Your task to perform on an android device: turn off data saver in the chrome app Image 0: 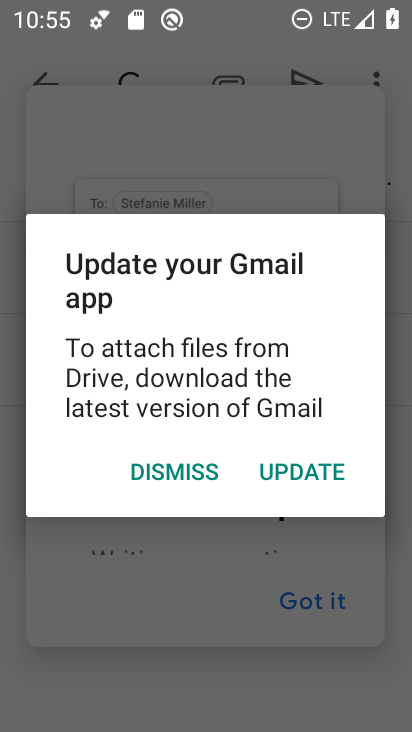
Step 0: press home button
Your task to perform on an android device: turn off data saver in the chrome app Image 1: 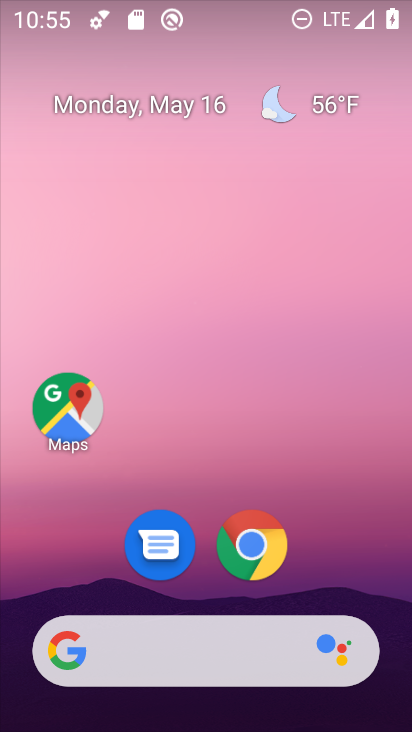
Step 1: click (251, 545)
Your task to perform on an android device: turn off data saver in the chrome app Image 2: 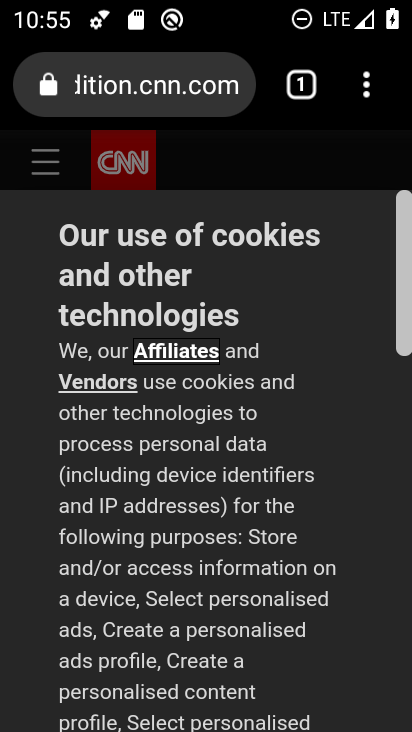
Step 2: click (368, 87)
Your task to perform on an android device: turn off data saver in the chrome app Image 3: 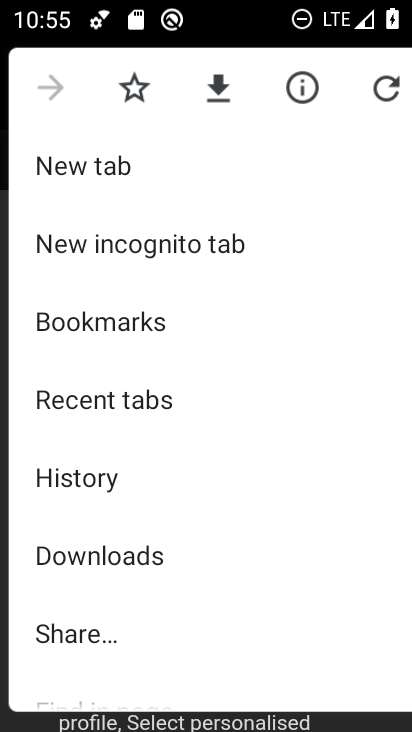
Step 3: drag from (216, 506) to (193, 384)
Your task to perform on an android device: turn off data saver in the chrome app Image 4: 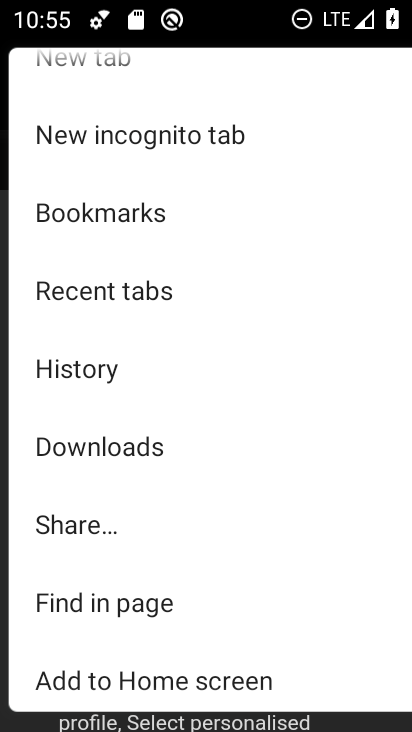
Step 4: drag from (194, 593) to (171, 456)
Your task to perform on an android device: turn off data saver in the chrome app Image 5: 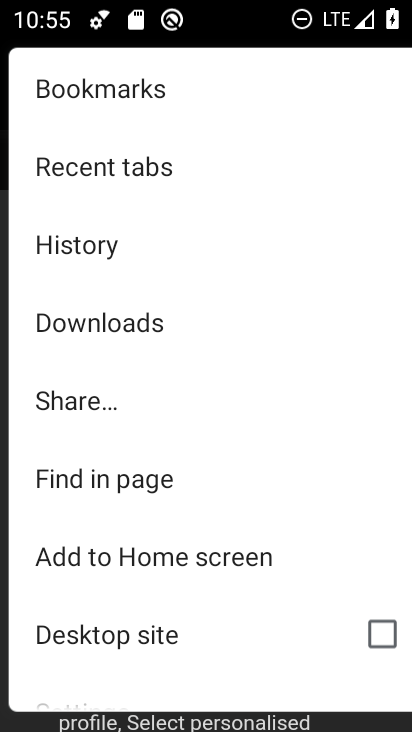
Step 5: drag from (152, 589) to (199, 429)
Your task to perform on an android device: turn off data saver in the chrome app Image 6: 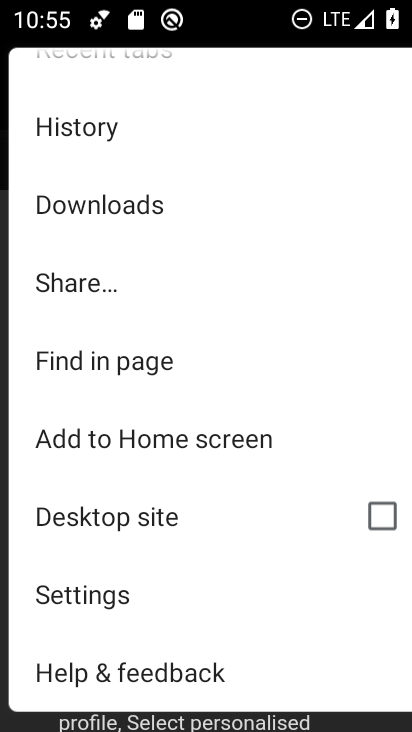
Step 6: click (97, 589)
Your task to perform on an android device: turn off data saver in the chrome app Image 7: 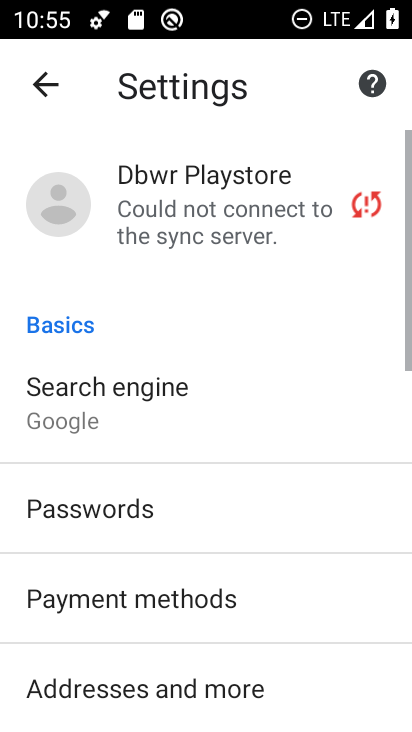
Step 7: drag from (142, 595) to (170, 445)
Your task to perform on an android device: turn off data saver in the chrome app Image 8: 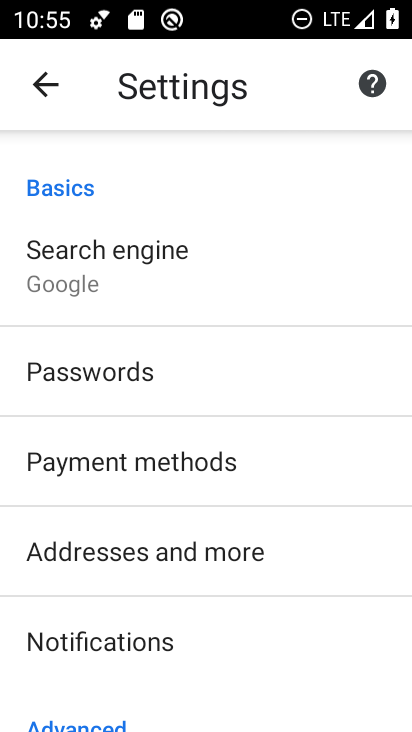
Step 8: drag from (149, 589) to (174, 471)
Your task to perform on an android device: turn off data saver in the chrome app Image 9: 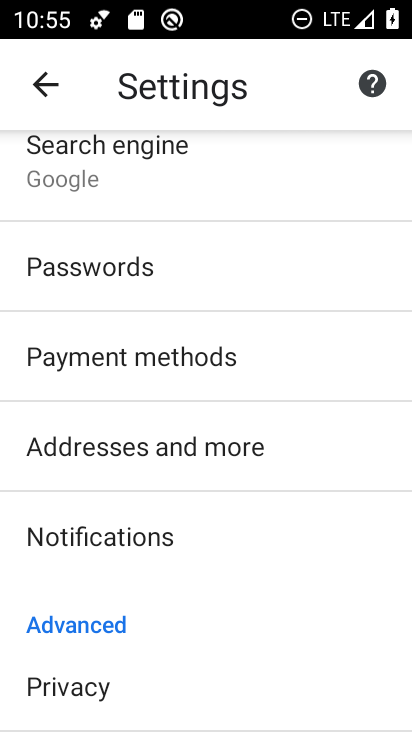
Step 9: drag from (108, 656) to (145, 519)
Your task to perform on an android device: turn off data saver in the chrome app Image 10: 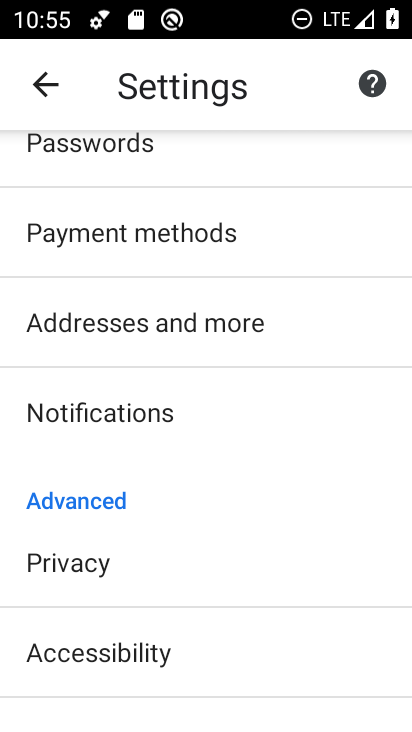
Step 10: drag from (140, 661) to (180, 527)
Your task to perform on an android device: turn off data saver in the chrome app Image 11: 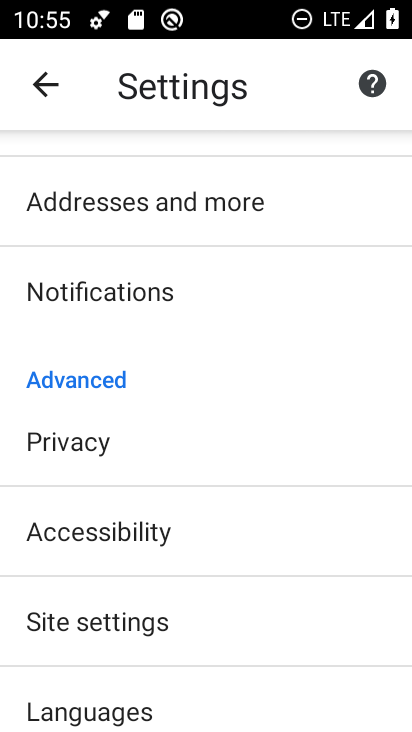
Step 11: drag from (154, 612) to (163, 491)
Your task to perform on an android device: turn off data saver in the chrome app Image 12: 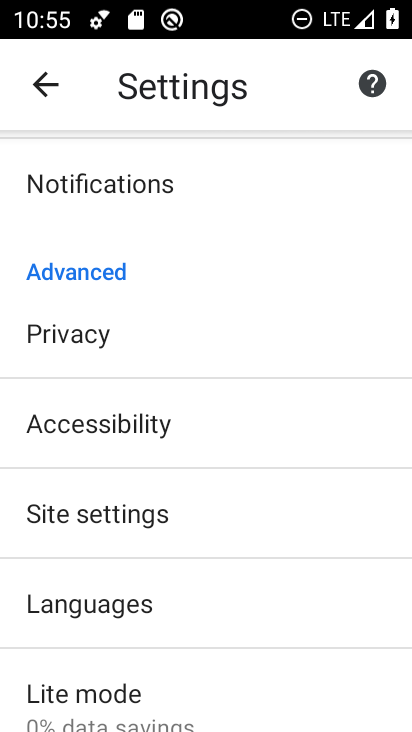
Step 12: drag from (118, 652) to (151, 486)
Your task to perform on an android device: turn off data saver in the chrome app Image 13: 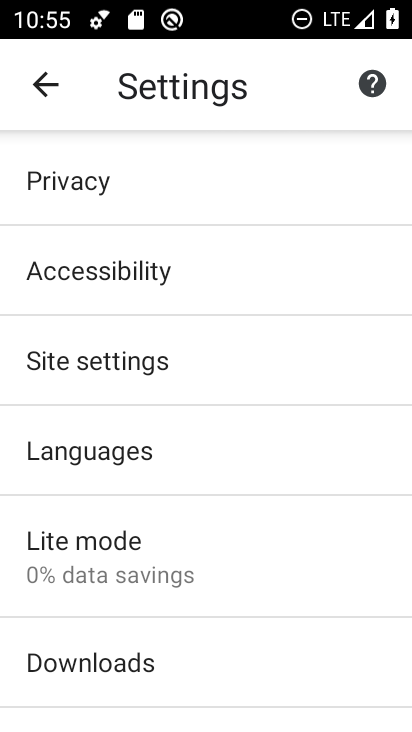
Step 13: drag from (126, 647) to (127, 535)
Your task to perform on an android device: turn off data saver in the chrome app Image 14: 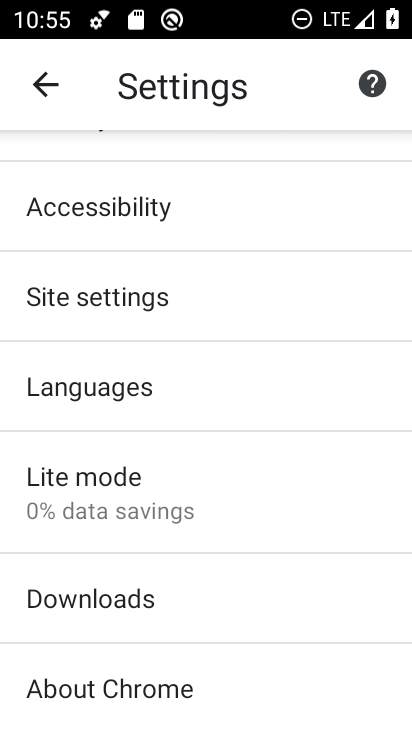
Step 14: click (125, 493)
Your task to perform on an android device: turn off data saver in the chrome app Image 15: 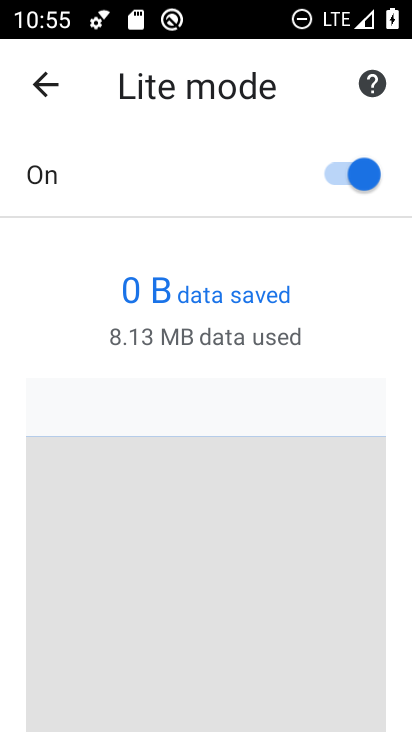
Step 15: click (341, 164)
Your task to perform on an android device: turn off data saver in the chrome app Image 16: 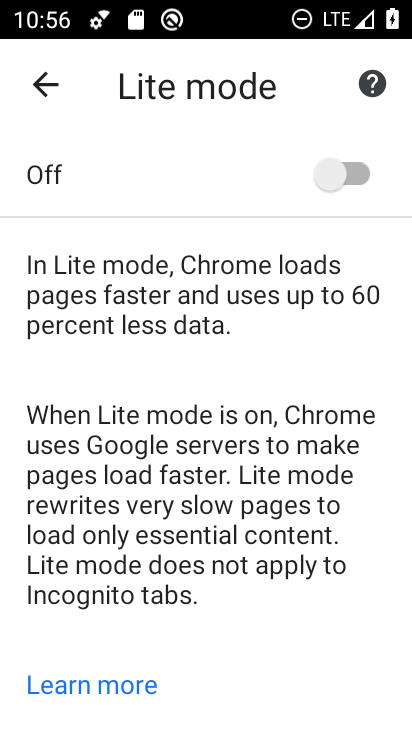
Step 16: task complete